Your task to perform on an android device: Go to privacy settings Image 0: 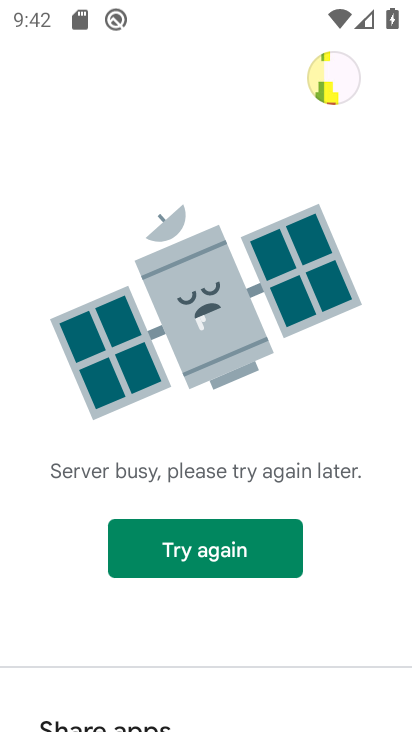
Step 0: press home button
Your task to perform on an android device: Go to privacy settings Image 1: 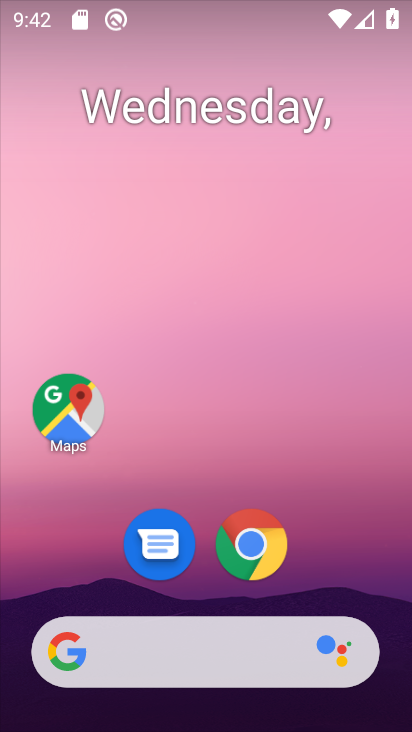
Step 1: drag from (207, 715) to (191, 157)
Your task to perform on an android device: Go to privacy settings Image 2: 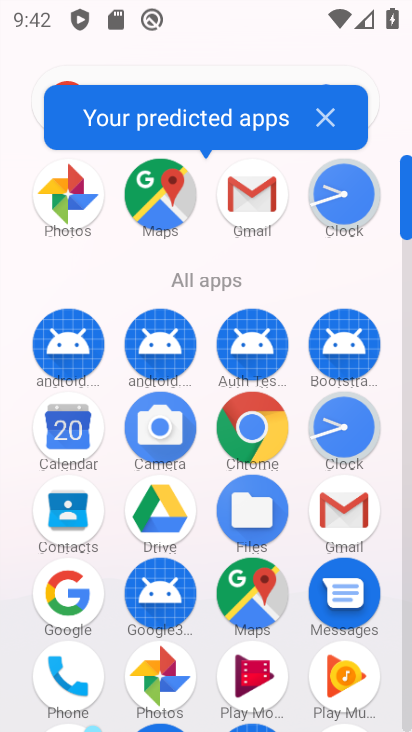
Step 2: drag from (208, 637) to (217, 200)
Your task to perform on an android device: Go to privacy settings Image 3: 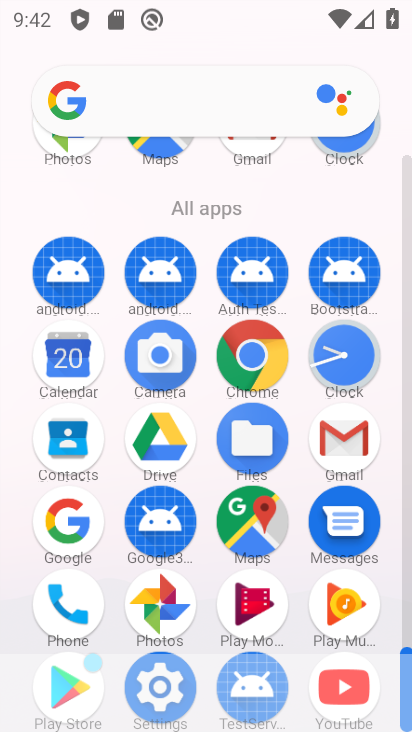
Step 3: click (156, 682)
Your task to perform on an android device: Go to privacy settings Image 4: 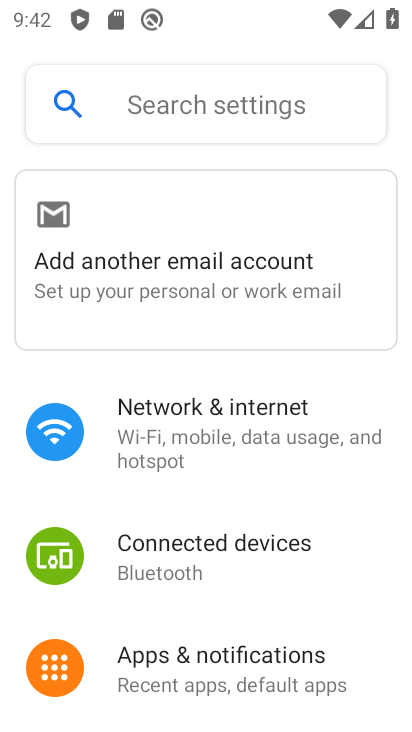
Step 4: drag from (247, 621) to (194, 168)
Your task to perform on an android device: Go to privacy settings Image 5: 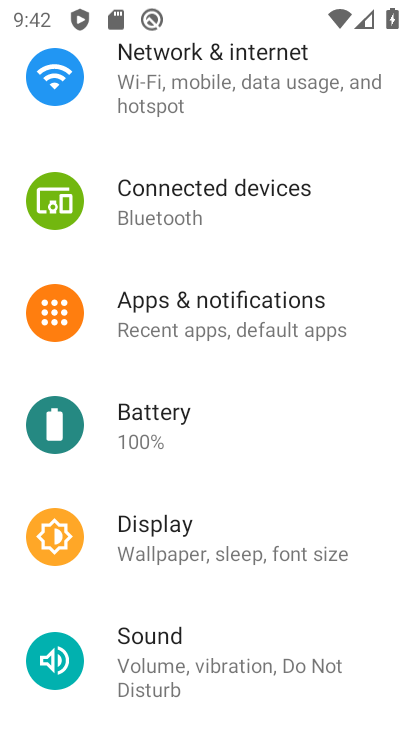
Step 5: drag from (222, 622) to (205, 192)
Your task to perform on an android device: Go to privacy settings Image 6: 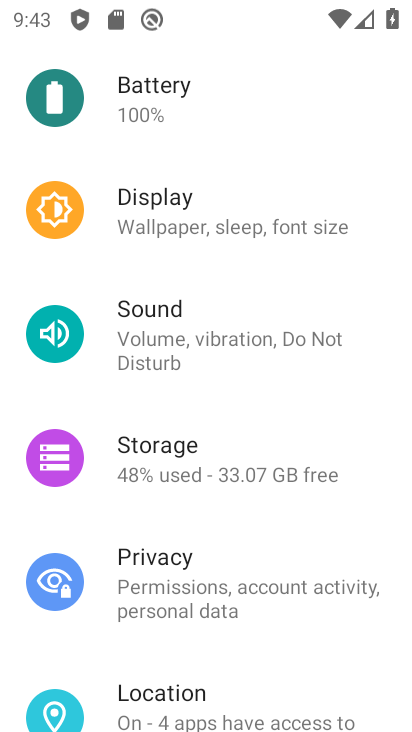
Step 6: click (179, 595)
Your task to perform on an android device: Go to privacy settings Image 7: 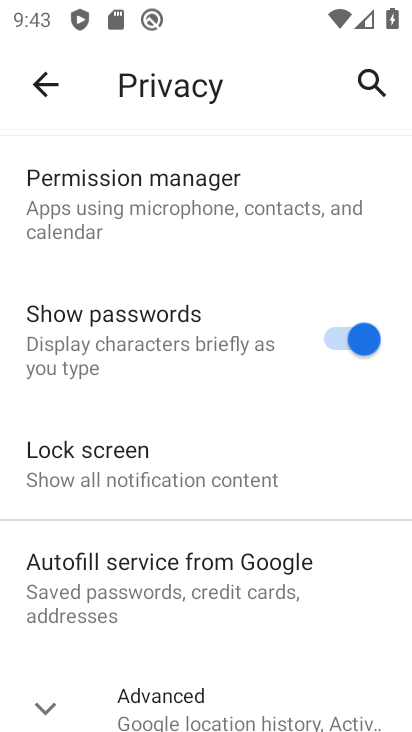
Step 7: task complete